Your task to perform on an android device: Open accessibility settings Image 0: 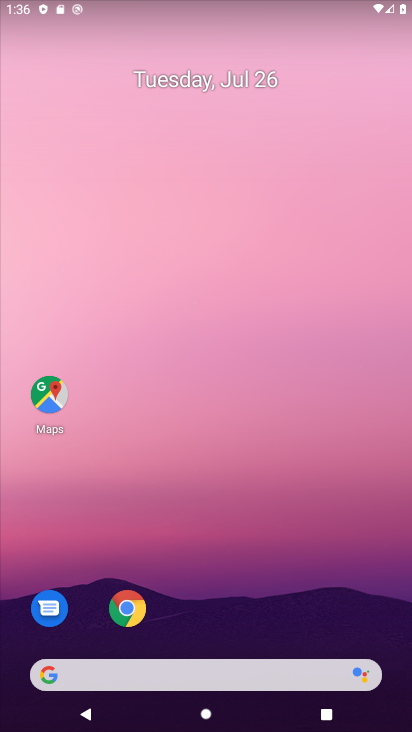
Step 0: press home button
Your task to perform on an android device: Open accessibility settings Image 1: 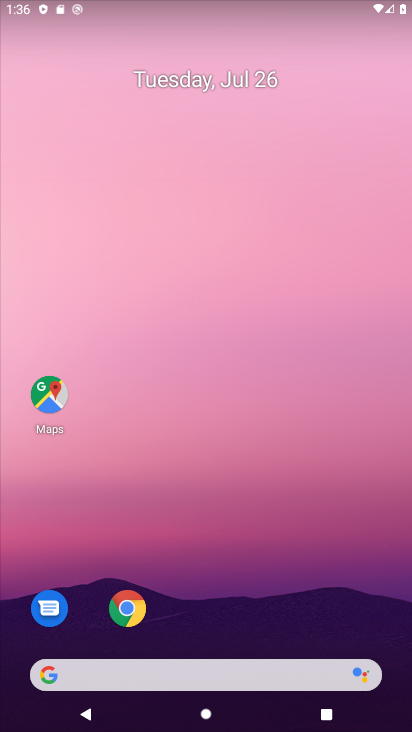
Step 1: drag from (198, 539) to (273, 4)
Your task to perform on an android device: Open accessibility settings Image 2: 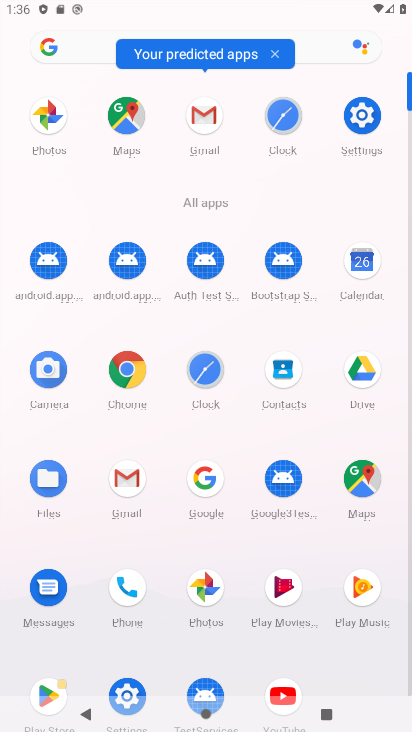
Step 2: click (357, 122)
Your task to perform on an android device: Open accessibility settings Image 3: 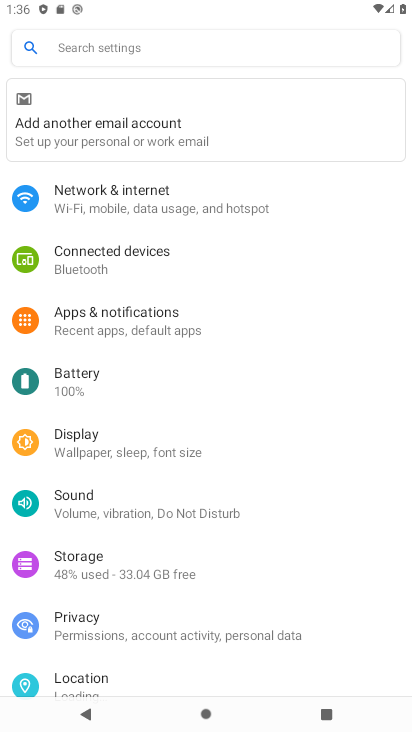
Step 3: drag from (293, 662) to (296, 17)
Your task to perform on an android device: Open accessibility settings Image 4: 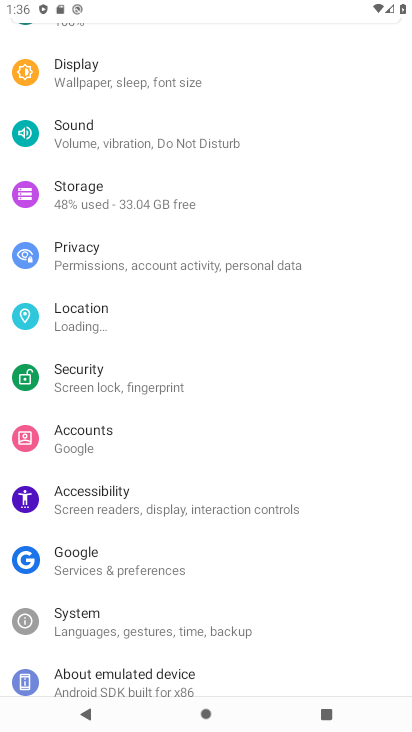
Step 4: click (73, 498)
Your task to perform on an android device: Open accessibility settings Image 5: 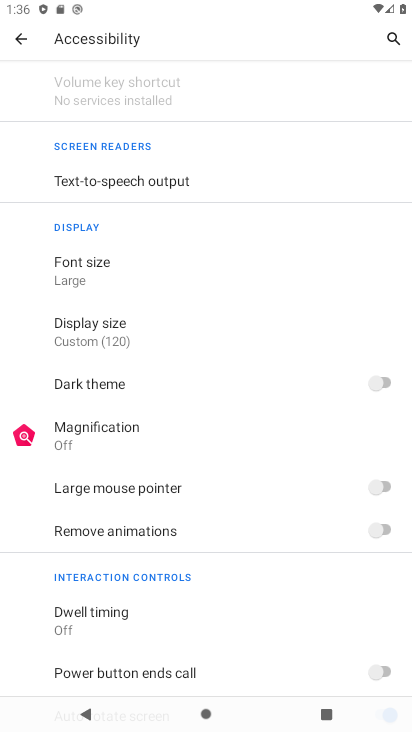
Step 5: task complete